Your task to perform on an android device: set the timer Image 0: 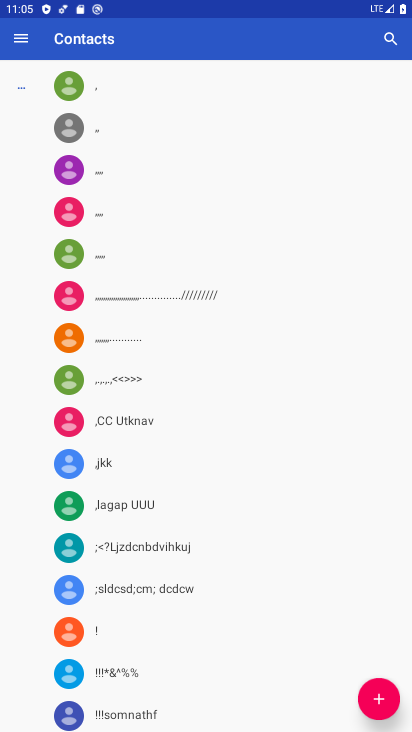
Step 0: press home button
Your task to perform on an android device: set the timer Image 1: 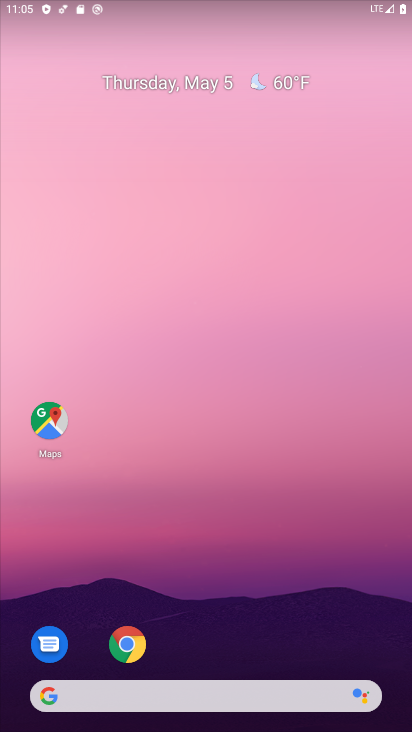
Step 1: drag from (329, 612) to (321, 118)
Your task to perform on an android device: set the timer Image 2: 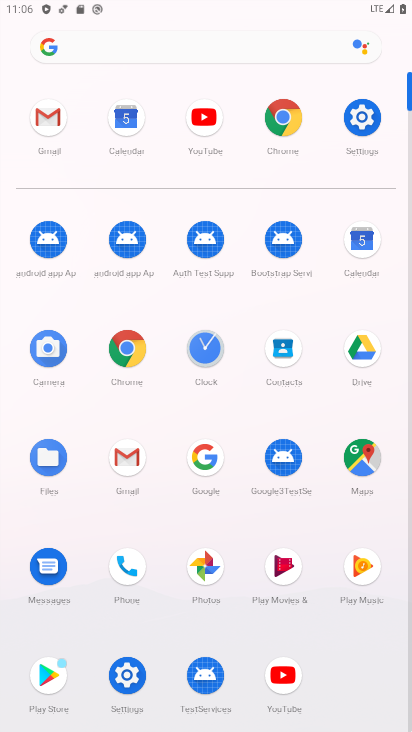
Step 2: click (211, 355)
Your task to perform on an android device: set the timer Image 3: 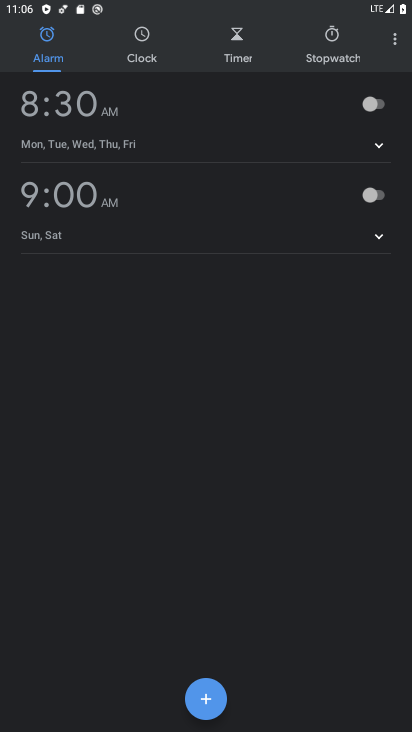
Step 3: click (240, 41)
Your task to perform on an android device: set the timer Image 4: 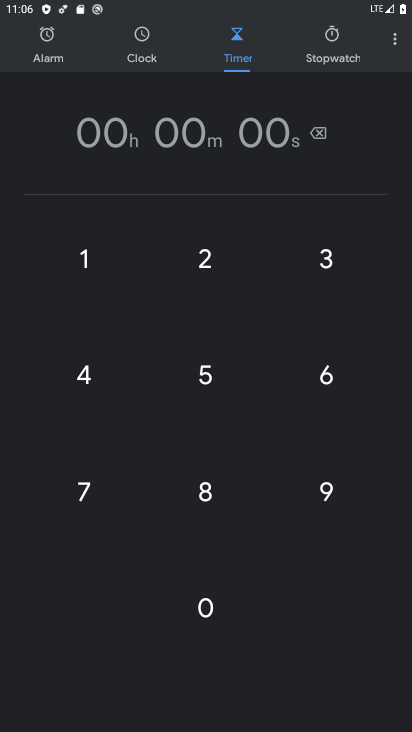
Step 4: click (87, 270)
Your task to perform on an android device: set the timer Image 5: 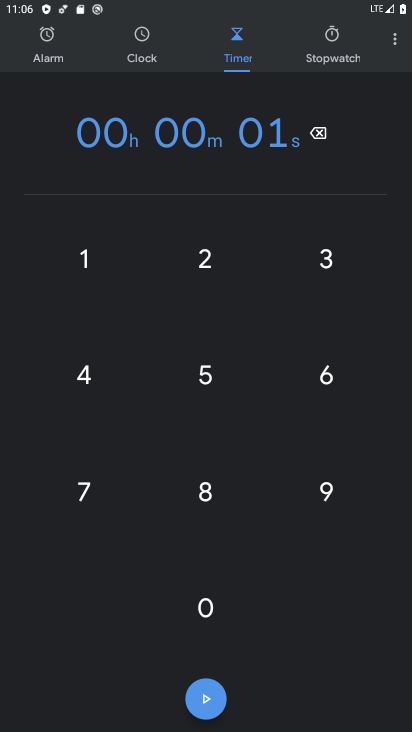
Step 5: click (192, 373)
Your task to perform on an android device: set the timer Image 6: 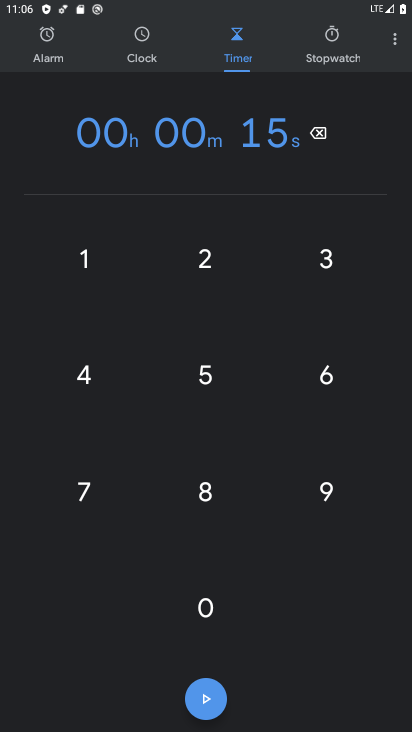
Step 6: click (210, 707)
Your task to perform on an android device: set the timer Image 7: 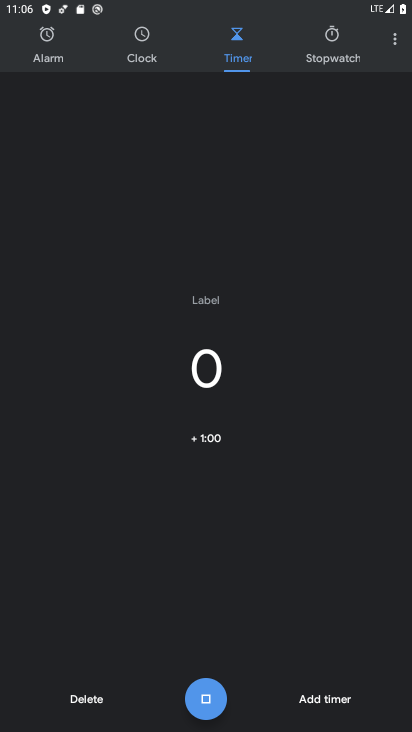
Step 7: click (173, 701)
Your task to perform on an android device: set the timer Image 8: 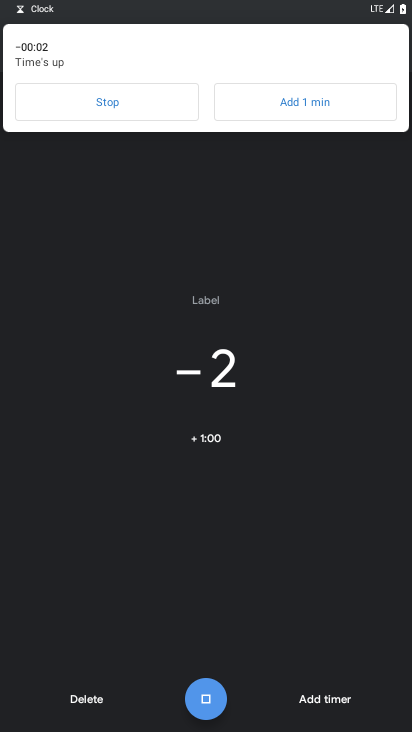
Step 8: click (83, 111)
Your task to perform on an android device: set the timer Image 9: 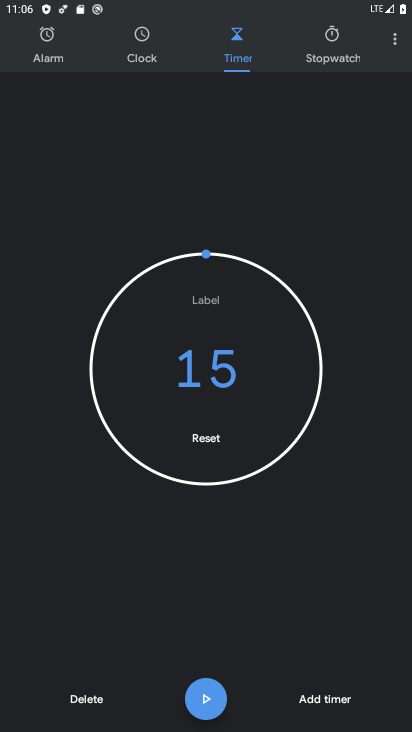
Step 9: task complete